Your task to perform on an android device: turn pop-ups off in chrome Image 0: 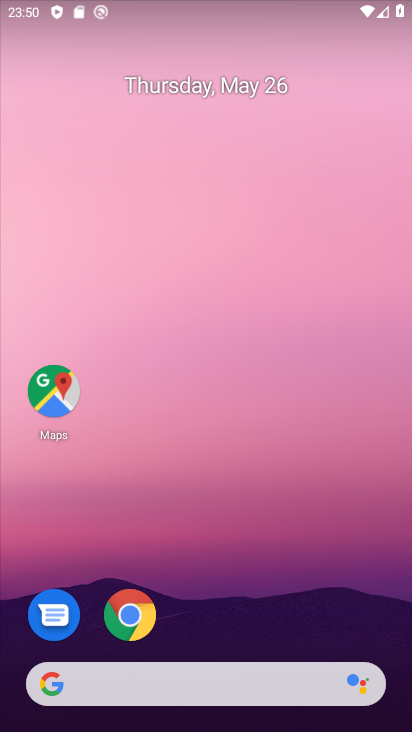
Step 0: click (132, 646)
Your task to perform on an android device: turn pop-ups off in chrome Image 1: 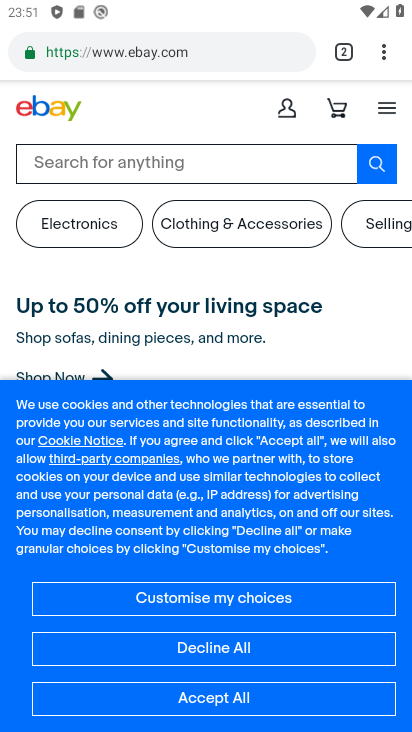
Step 1: drag from (382, 53) to (203, 622)
Your task to perform on an android device: turn pop-ups off in chrome Image 2: 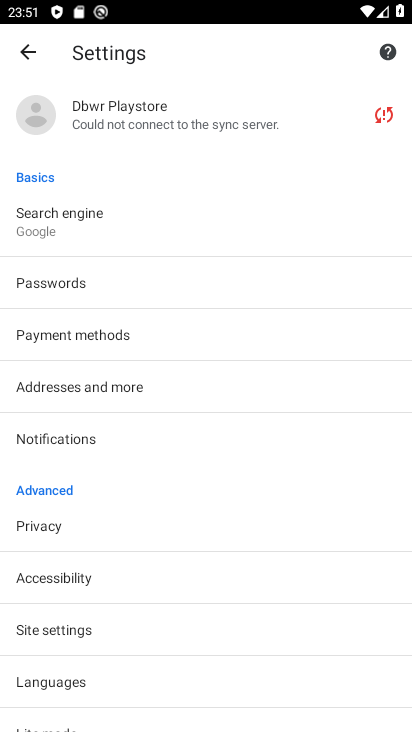
Step 2: click (64, 621)
Your task to perform on an android device: turn pop-ups off in chrome Image 3: 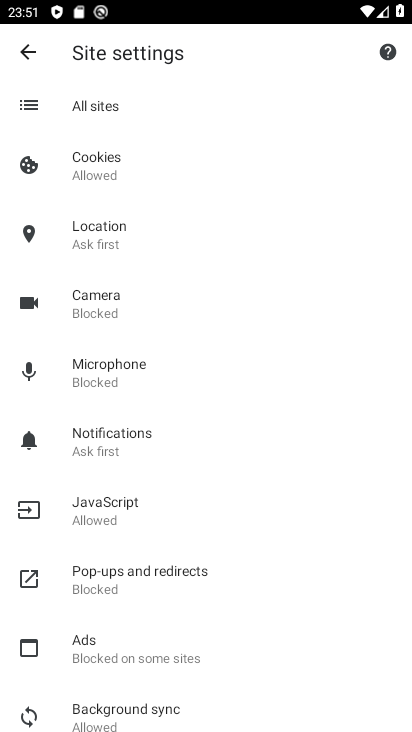
Step 3: click (113, 575)
Your task to perform on an android device: turn pop-ups off in chrome Image 4: 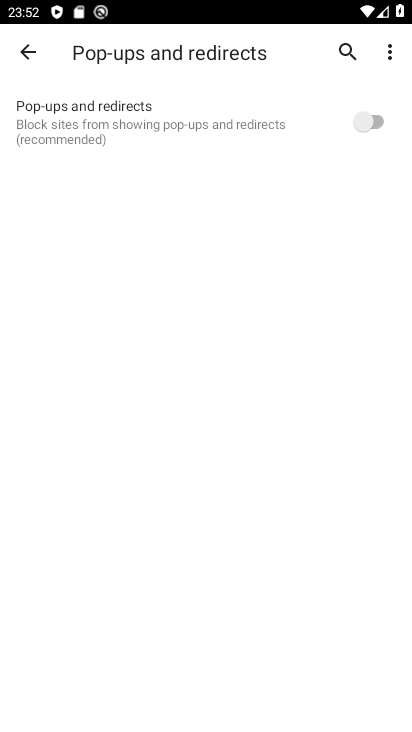
Step 4: task complete